Your task to perform on an android device: install app "PlayWell" Image 0: 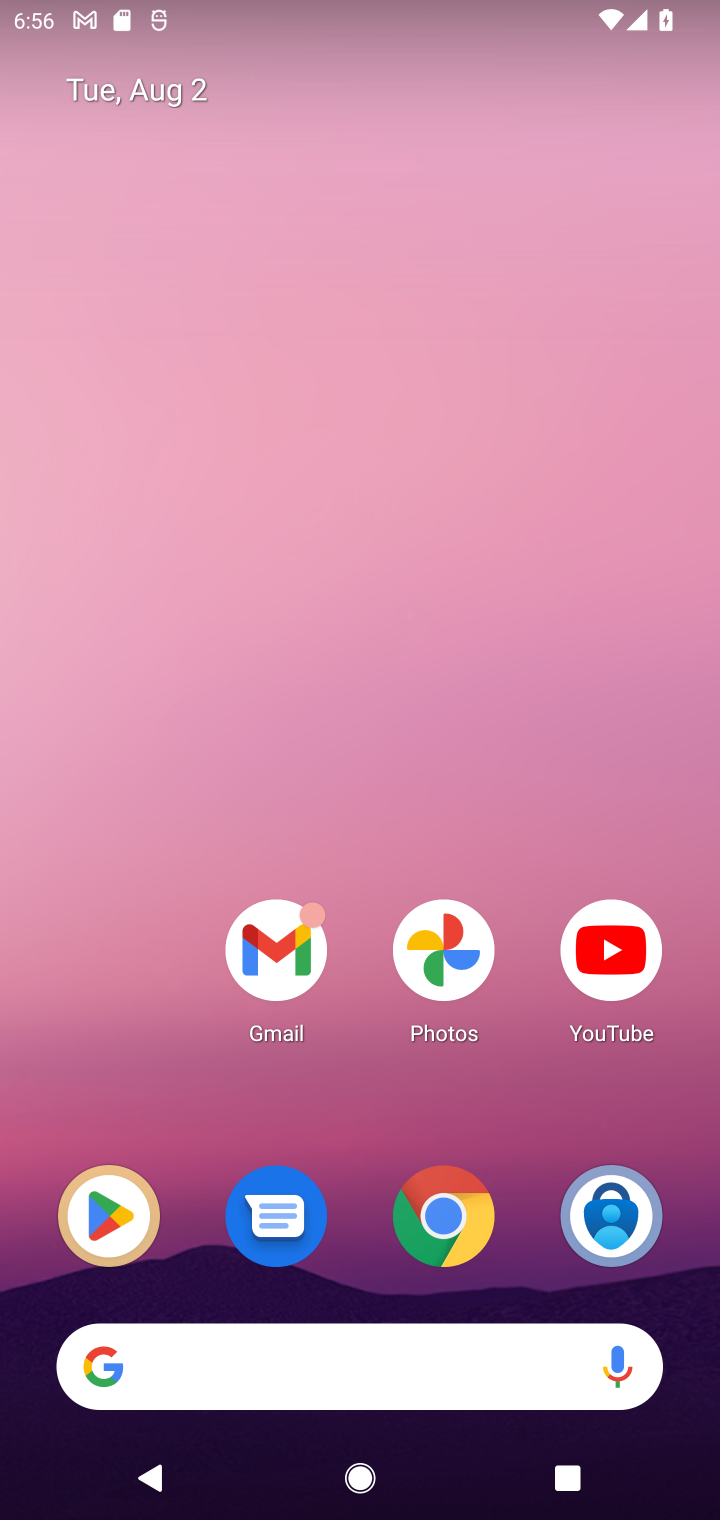
Step 0: press home button
Your task to perform on an android device: install app "PlayWell" Image 1: 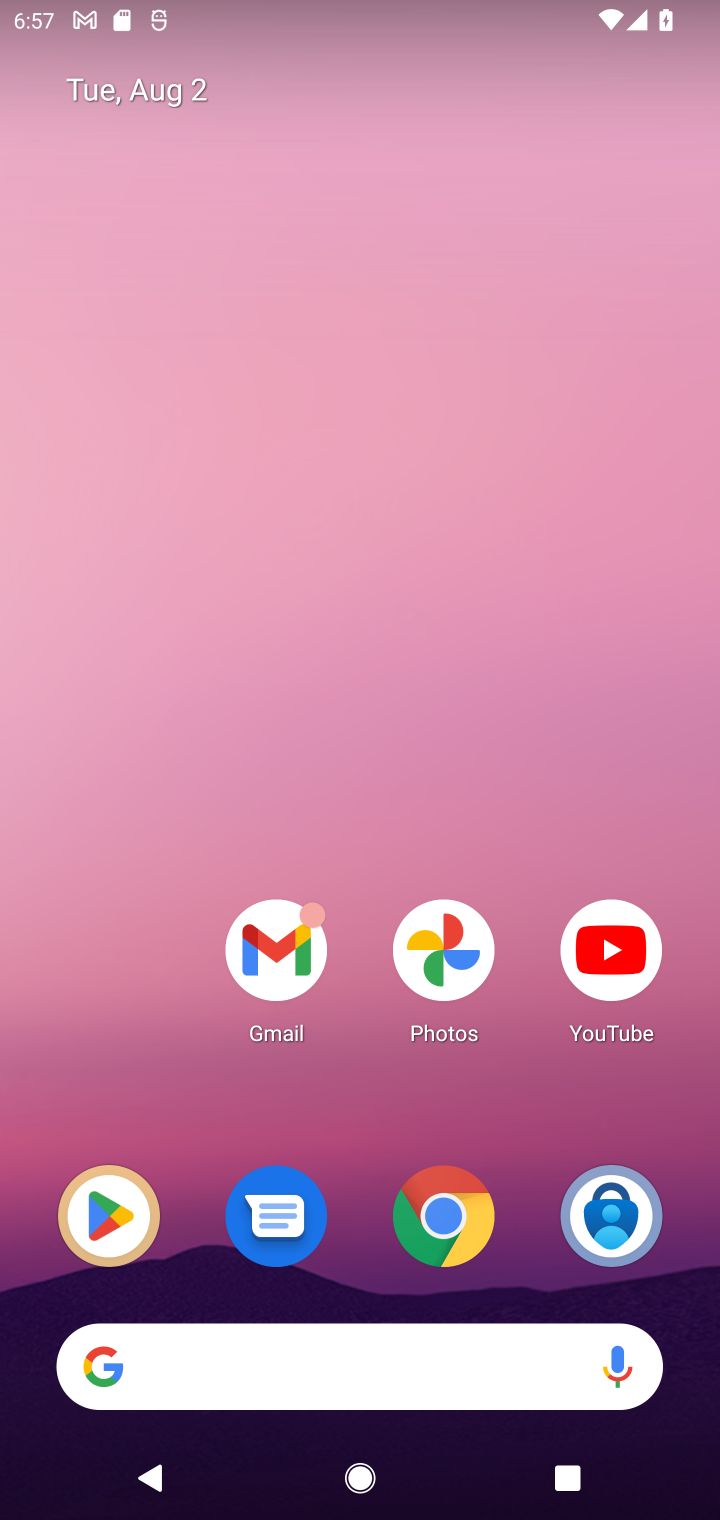
Step 1: click (100, 1210)
Your task to perform on an android device: install app "PlayWell" Image 2: 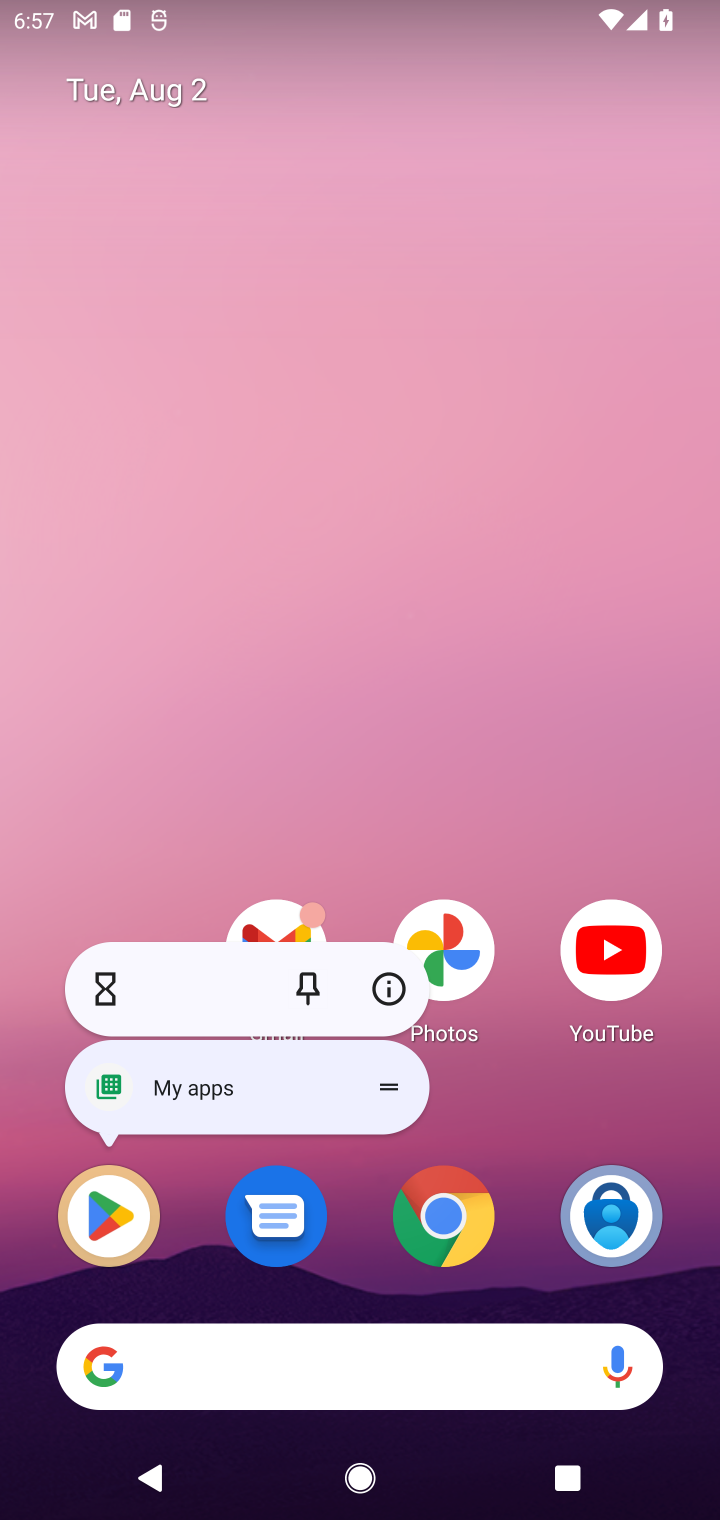
Step 2: click (115, 1210)
Your task to perform on an android device: install app "PlayWell" Image 3: 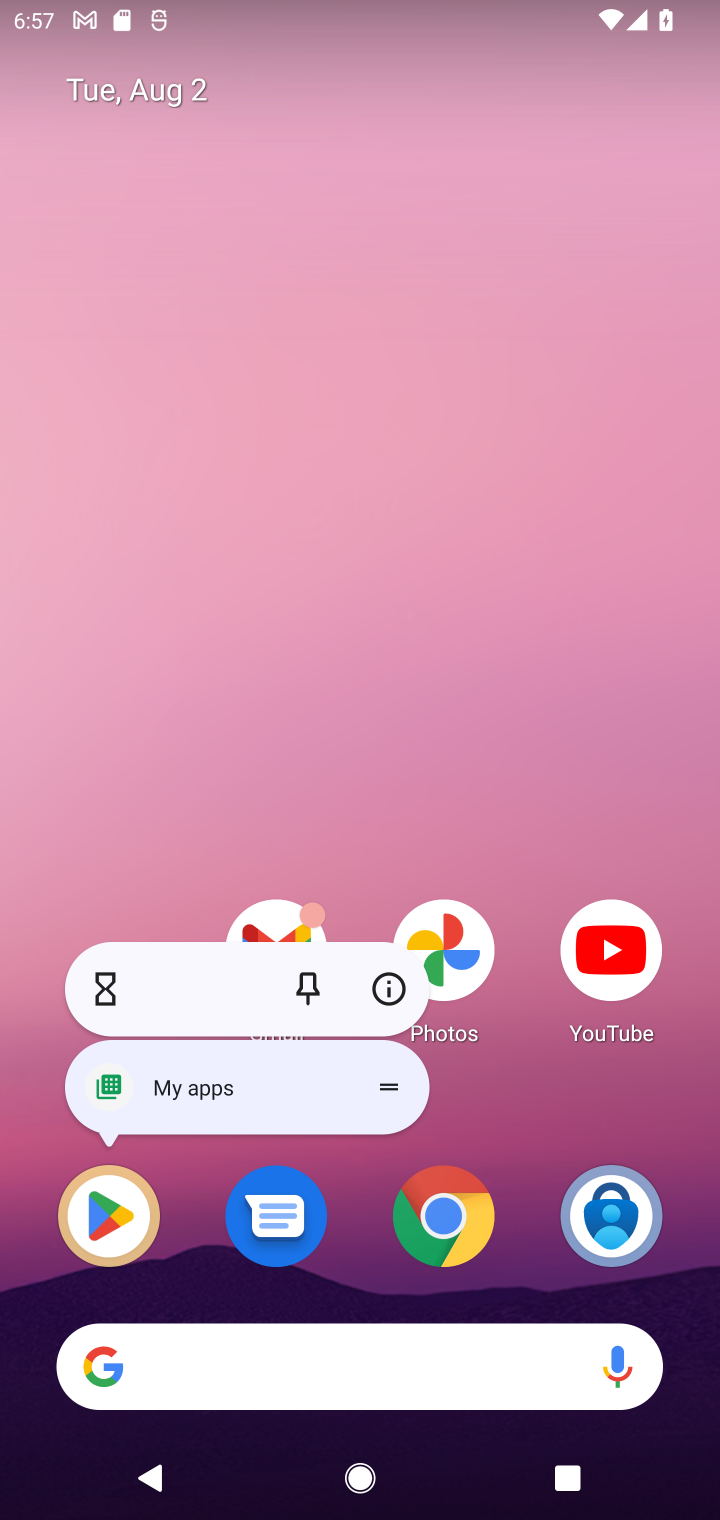
Step 3: click (117, 1213)
Your task to perform on an android device: install app "PlayWell" Image 4: 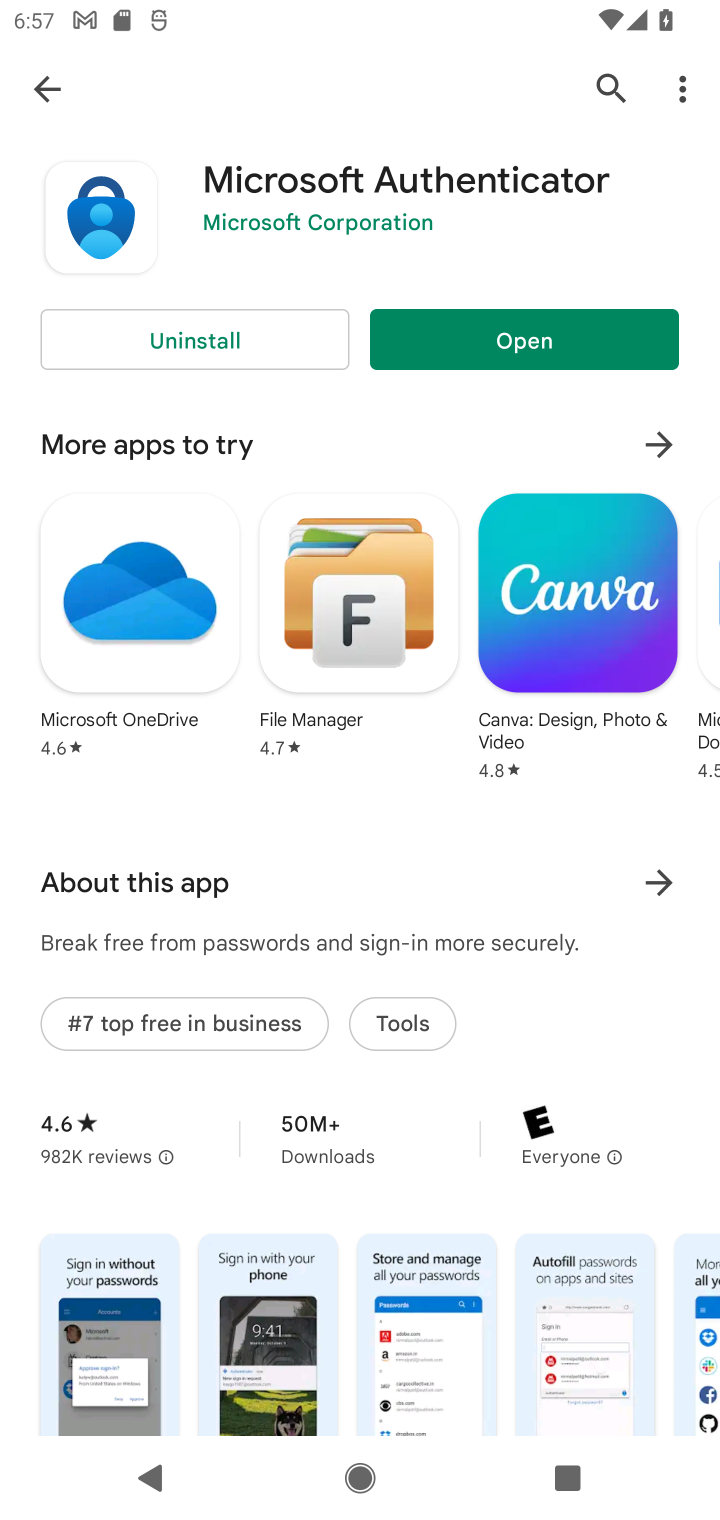
Step 4: click (605, 73)
Your task to perform on an android device: install app "PlayWell" Image 5: 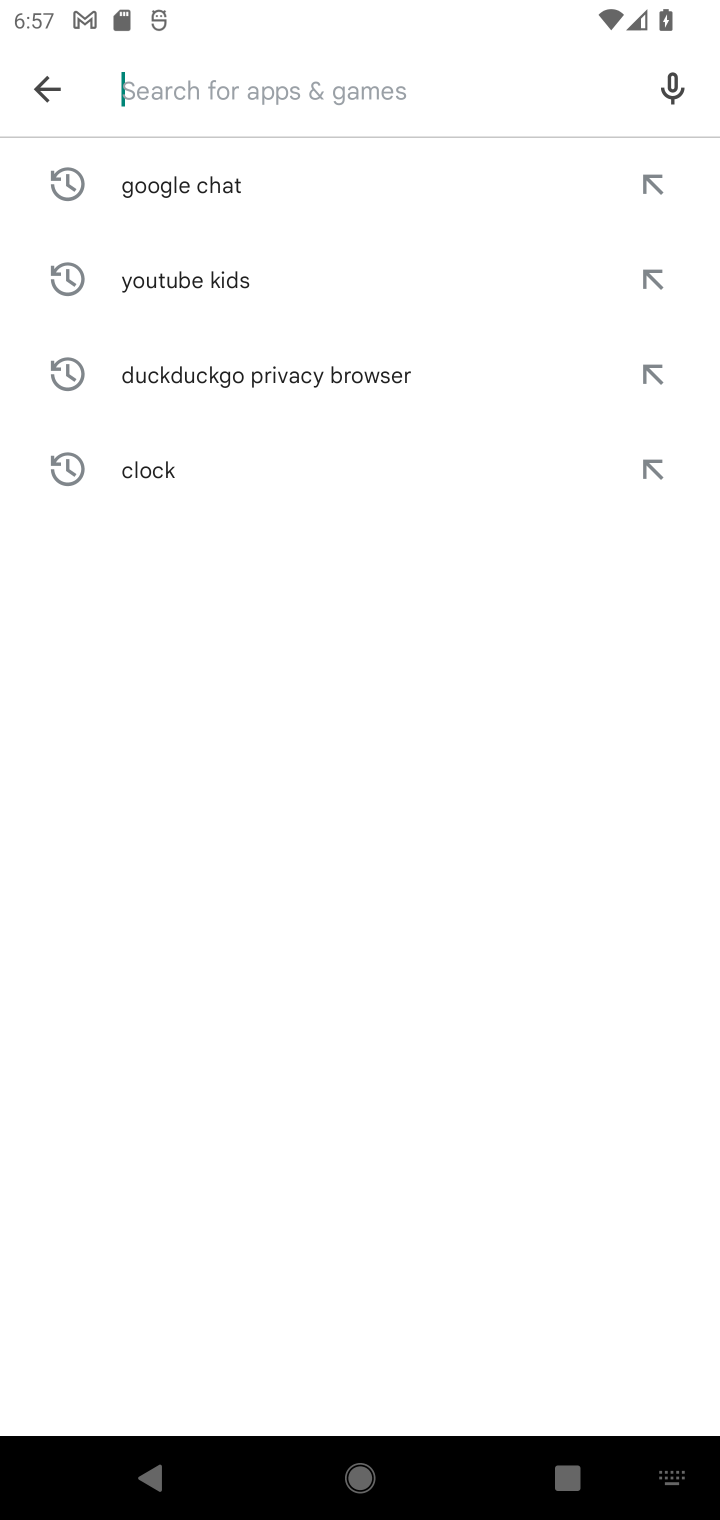
Step 5: type "PlayWell"
Your task to perform on an android device: install app "PlayWell" Image 6: 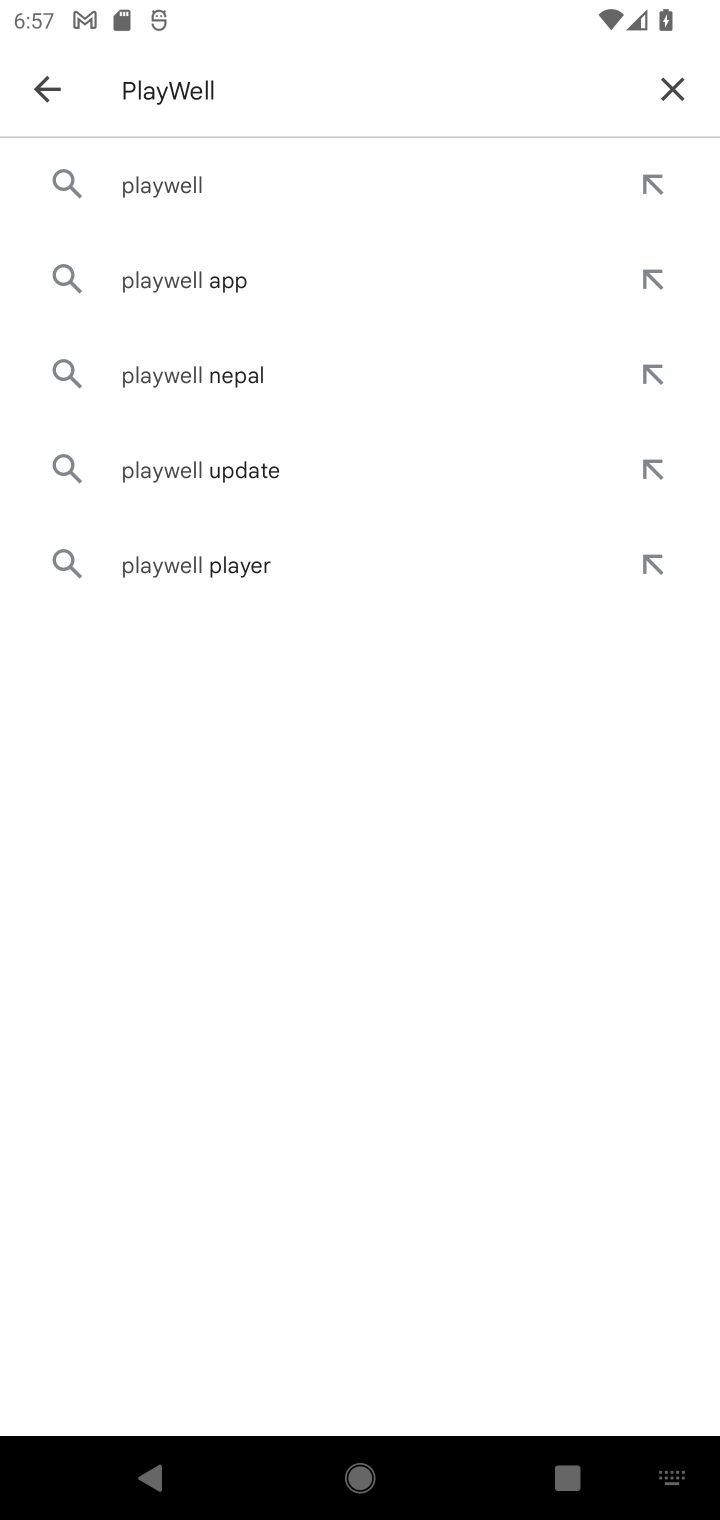
Step 6: click (161, 177)
Your task to perform on an android device: install app "PlayWell" Image 7: 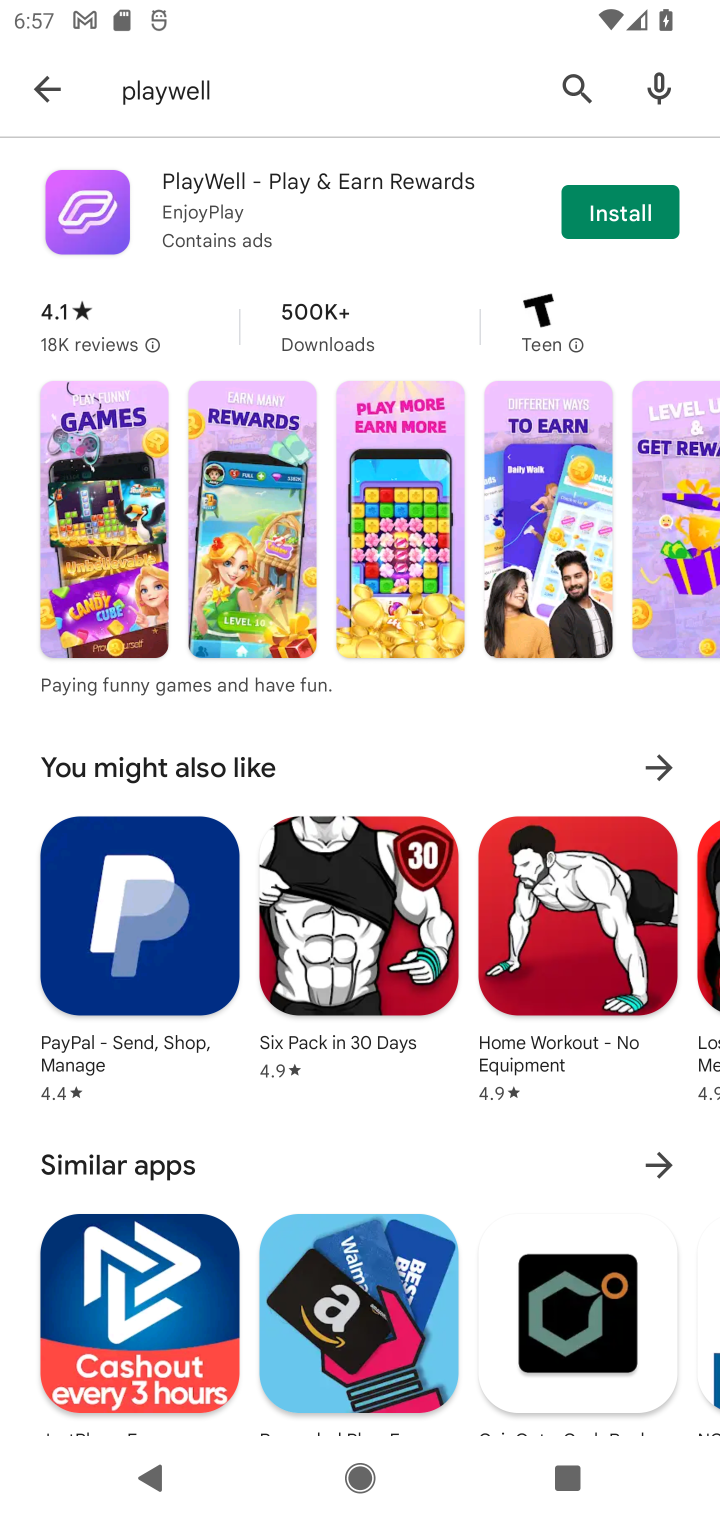
Step 7: click (632, 212)
Your task to perform on an android device: install app "PlayWell" Image 8: 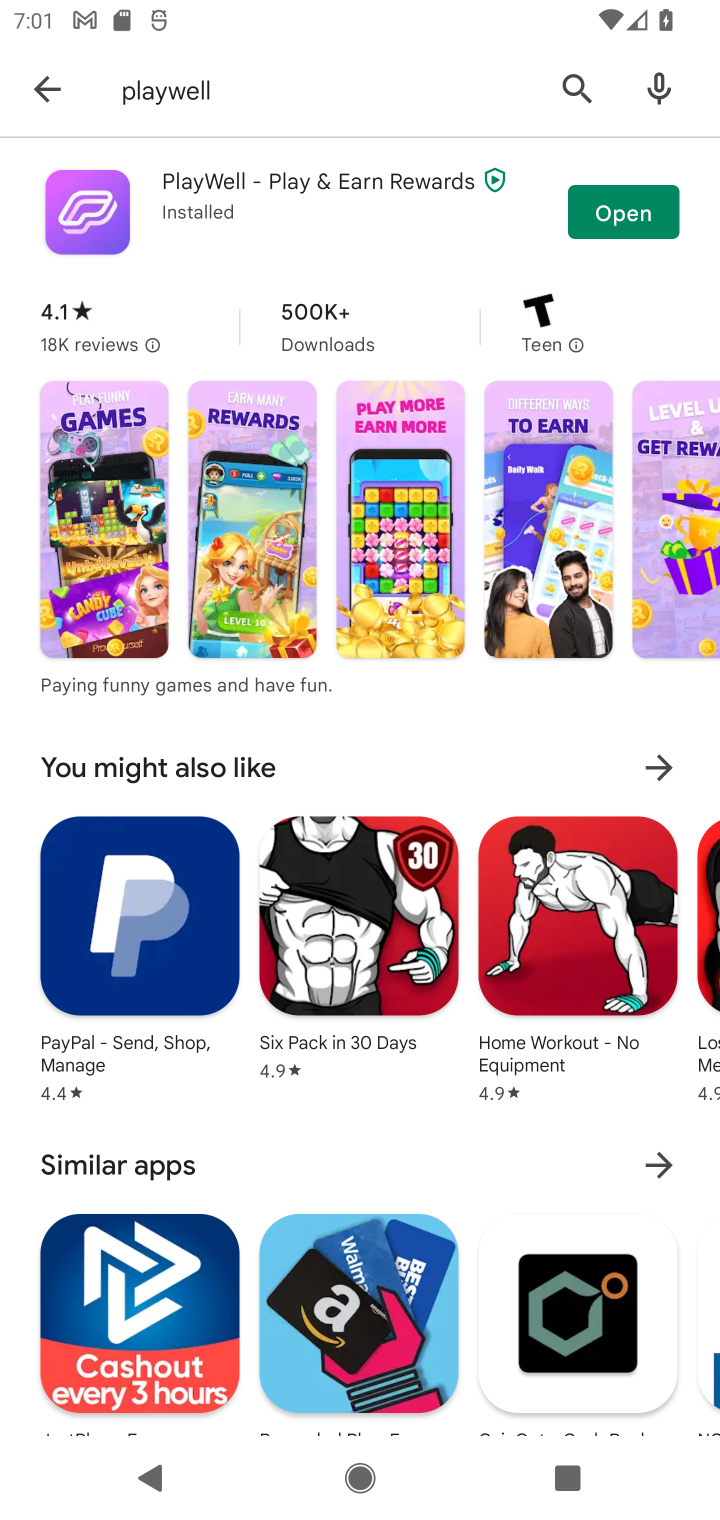
Step 8: task complete